Your task to perform on an android device: Go to privacy settings Image 0: 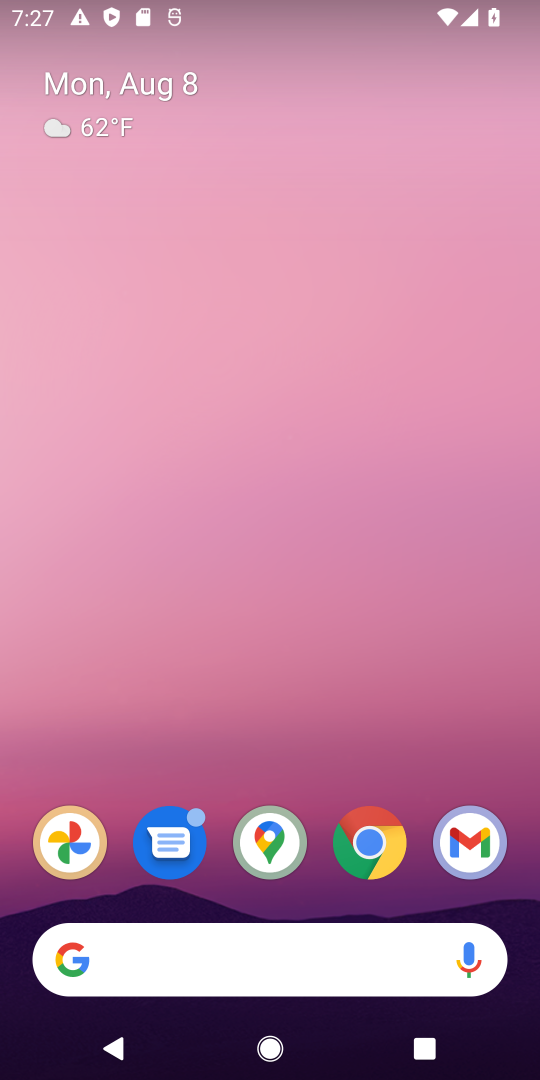
Step 0: drag from (520, 1027) to (441, 228)
Your task to perform on an android device: Go to privacy settings Image 1: 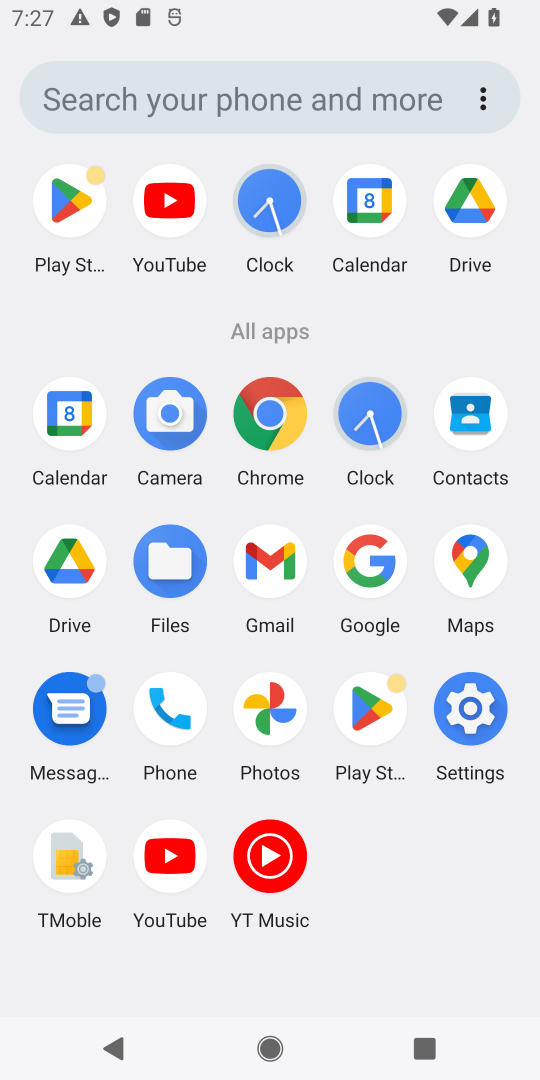
Step 1: click (466, 711)
Your task to perform on an android device: Go to privacy settings Image 2: 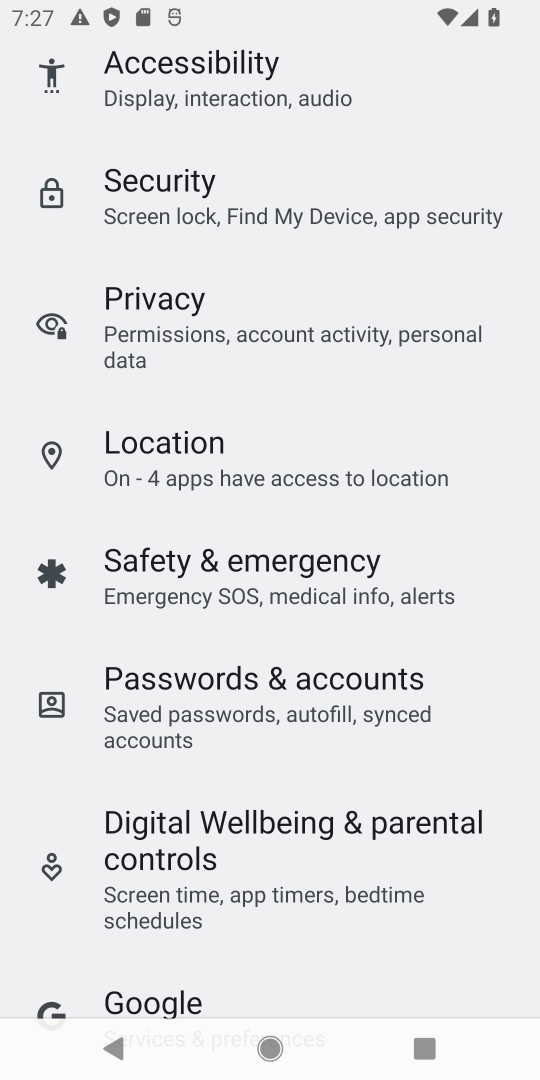
Step 2: click (137, 319)
Your task to perform on an android device: Go to privacy settings Image 3: 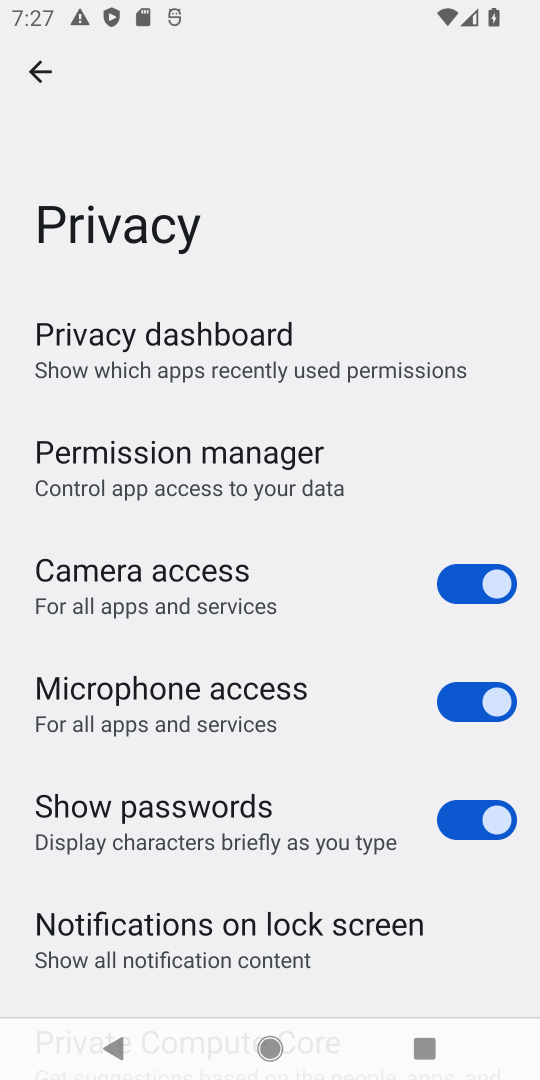
Step 3: task complete